Your task to perform on an android device: Open privacy settings Image 0: 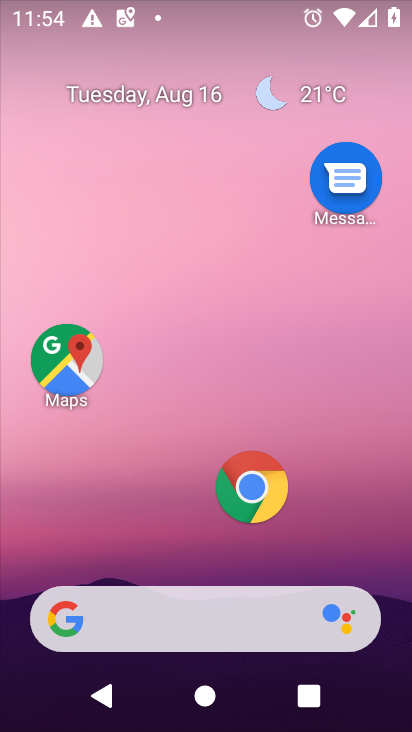
Step 0: drag from (149, 549) to (234, 62)
Your task to perform on an android device: Open privacy settings Image 1: 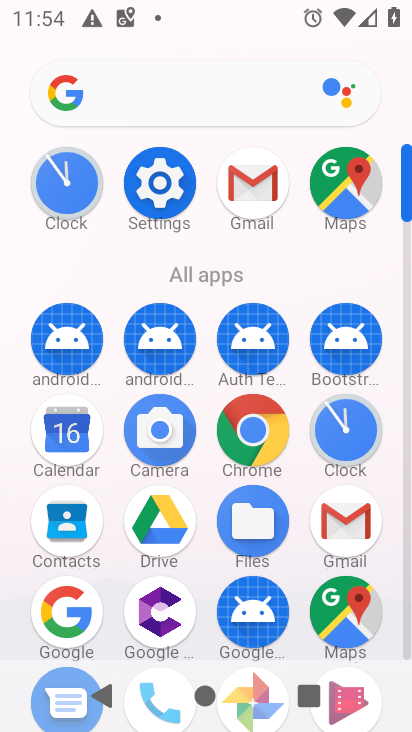
Step 1: click (173, 175)
Your task to perform on an android device: Open privacy settings Image 2: 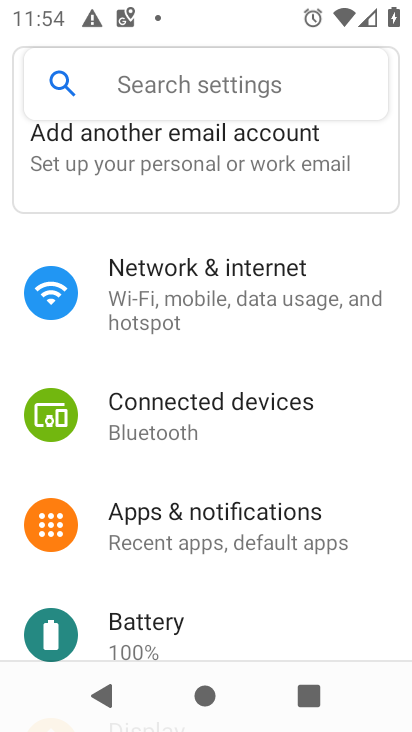
Step 2: drag from (179, 602) to (274, 42)
Your task to perform on an android device: Open privacy settings Image 3: 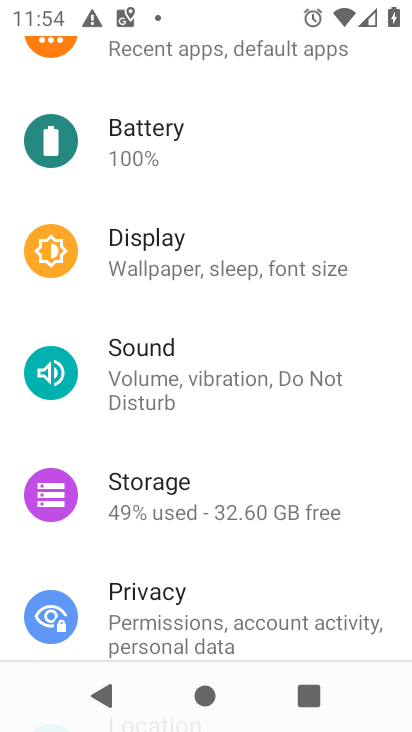
Step 3: click (178, 606)
Your task to perform on an android device: Open privacy settings Image 4: 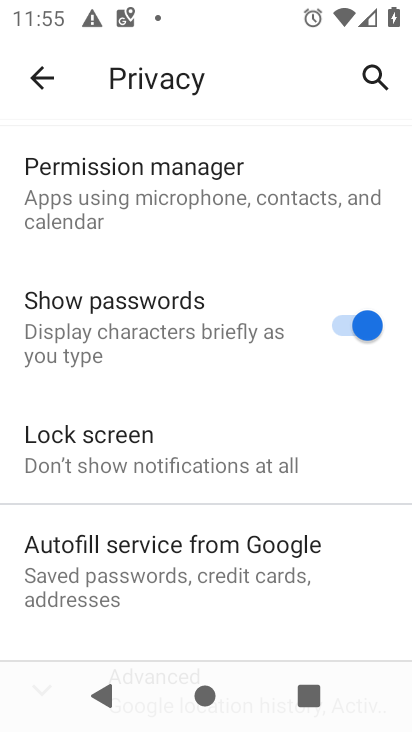
Step 4: task complete